Your task to perform on an android device: move a message to another label in the gmail app Image 0: 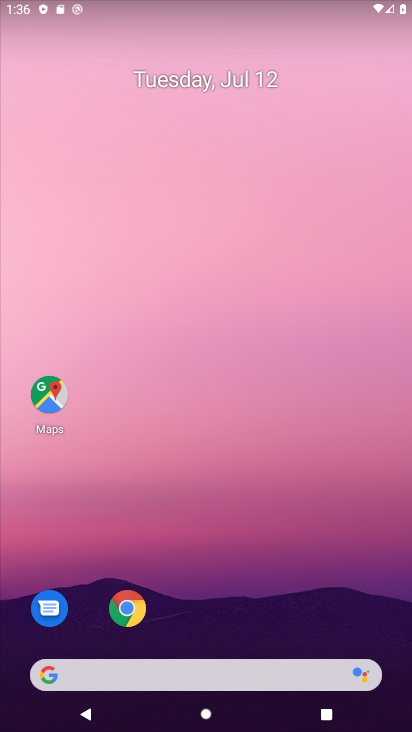
Step 0: drag from (307, 624) to (234, 36)
Your task to perform on an android device: move a message to another label in the gmail app Image 1: 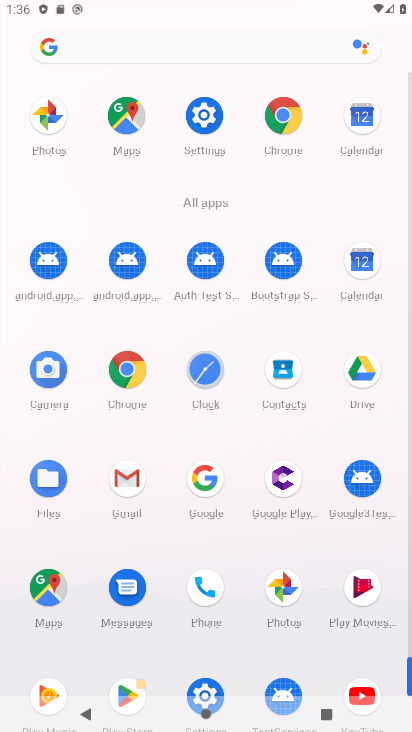
Step 1: click (133, 491)
Your task to perform on an android device: move a message to another label in the gmail app Image 2: 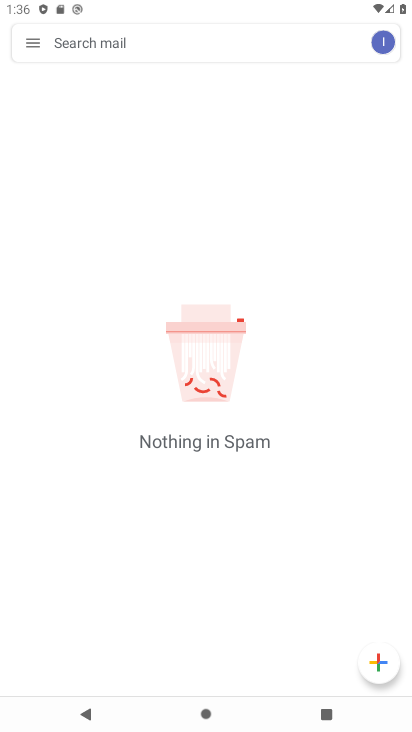
Step 2: click (29, 21)
Your task to perform on an android device: move a message to another label in the gmail app Image 3: 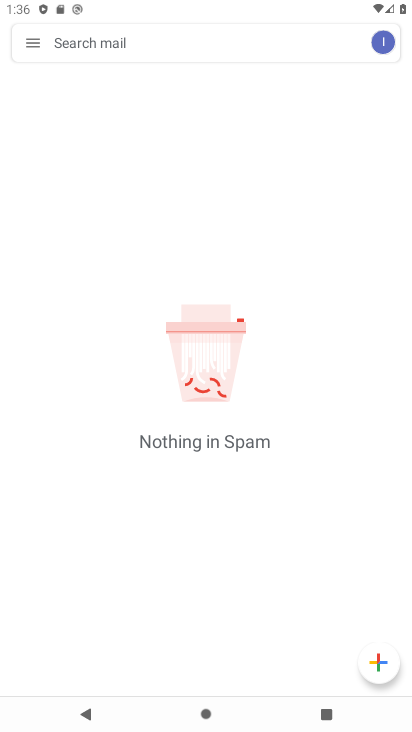
Step 3: click (39, 46)
Your task to perform on an android device: move a message to another label in the gmail app Image 4: 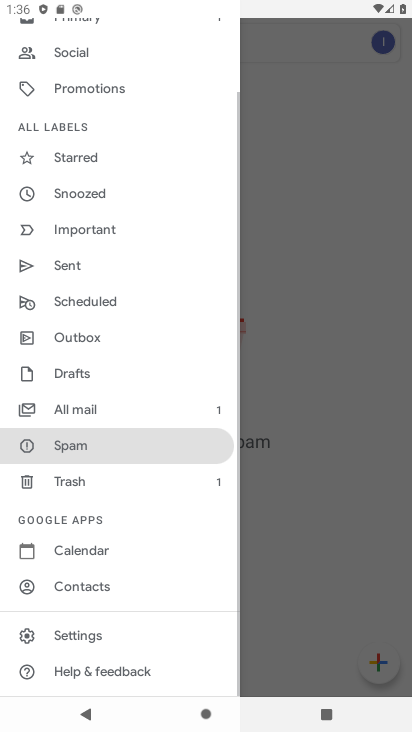
Step 4: drag from (89, 77) to (77, 655)
Your task to perform on an android device: move a message to another label in the gmail app Image 5: 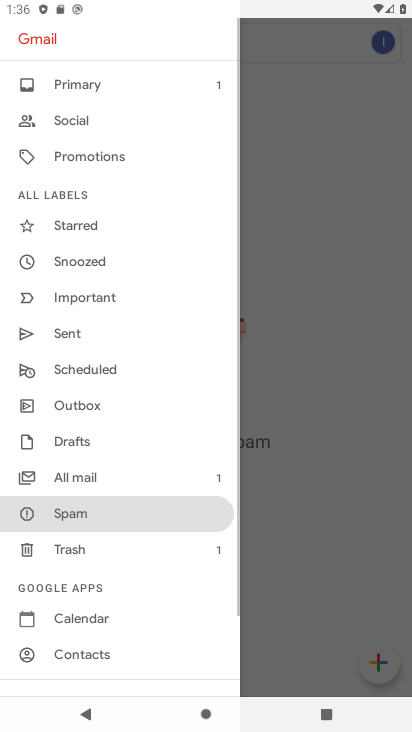
Step 5: click (88, 83)
Your task to perform on an android device: move a message to another label in the gmail app Image 6: 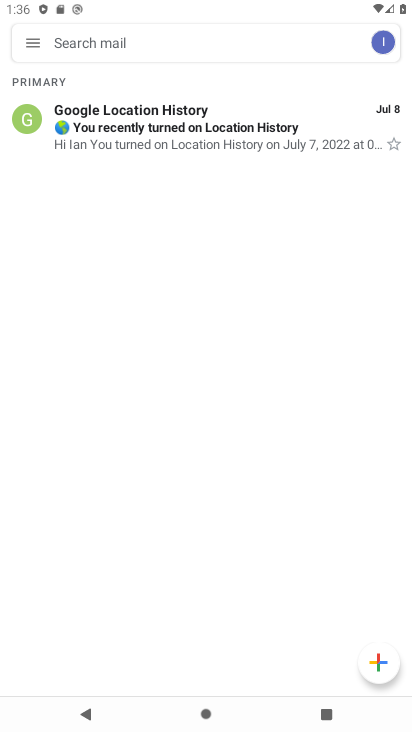
Step 6: click (217, 136)
Your task to perform on an android device: move a message to another label in the gmail app Image 7: 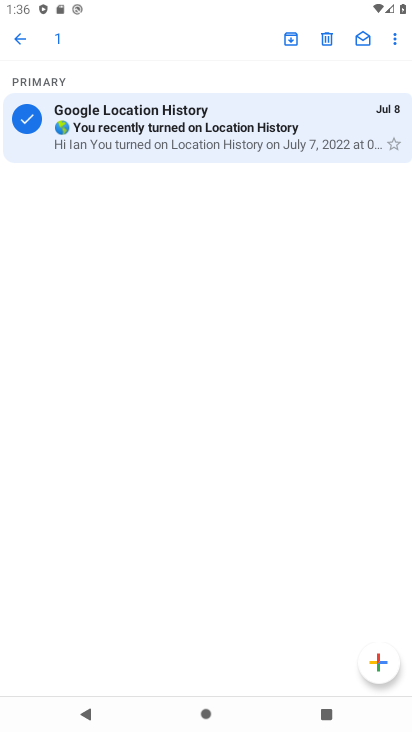
Step 7: click (393, 32)
Your task to perform on an android device: move a message to another label in the gmail app Image 8: 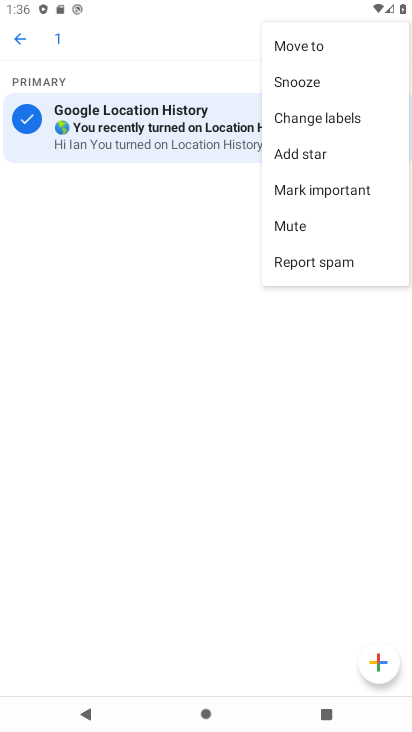
Step 8: click (307, 113)
Your task to perform on an android device: move a message to another label in the gmail app Image 9: 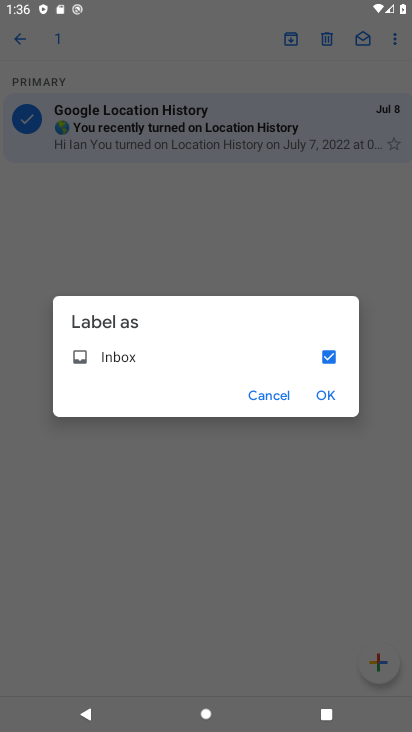
Step 9: click (317, 362)
Your task to perform on an android device: move a message to another label in the gmail app Image 10: 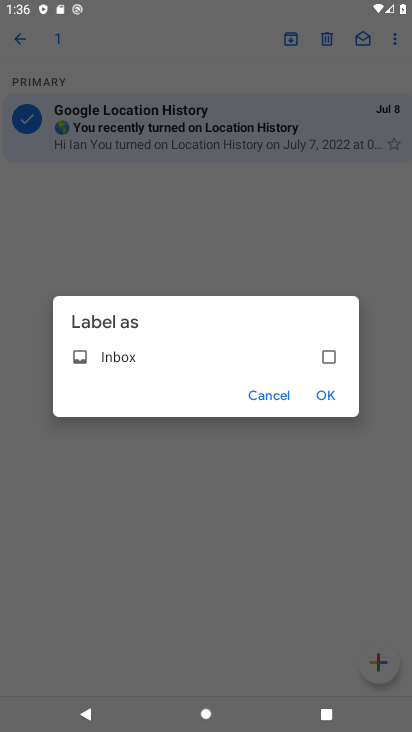
Step 10: click (326, 386)
Your task to perform on an android device: move a message to another label in the gmail app Image 11: 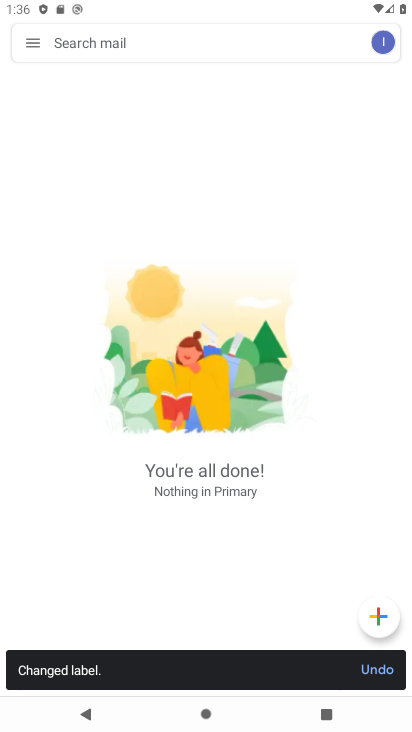
Step 11: task complete